Your task to perform on an android device: turn smart compose on in the gmail app Image 0: 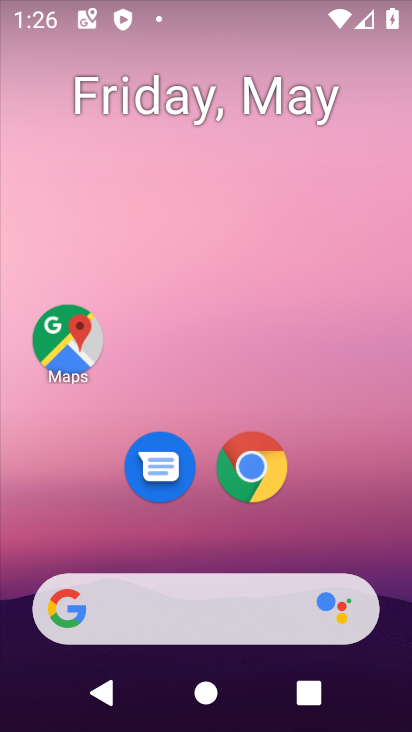
Step 0: drag from (339, 520) to (354, 187)
Your task to perform on an android device: turn smart compose on in the gmail app Image 1: 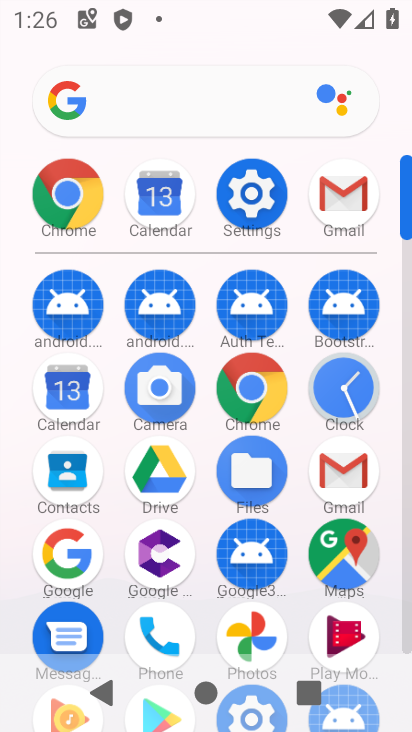
Step 1: click (345, 484)
Your task to perform on an android device: turn smart compose on in the gmail app Image 2: 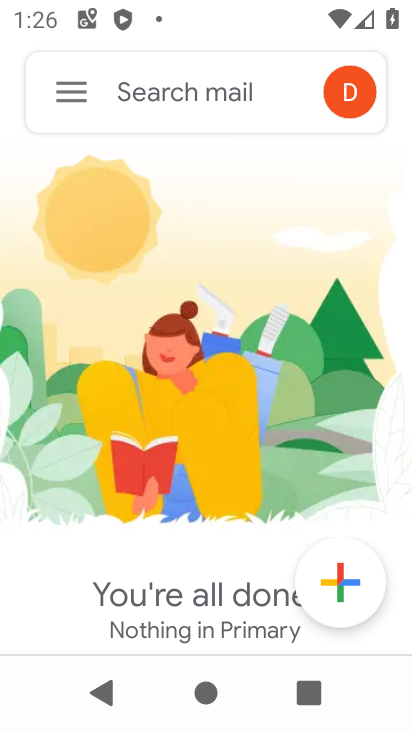
Step 2: click (75, 84)
Your task to perform on an android device: turn smart compose on in the gmail app Image 3: 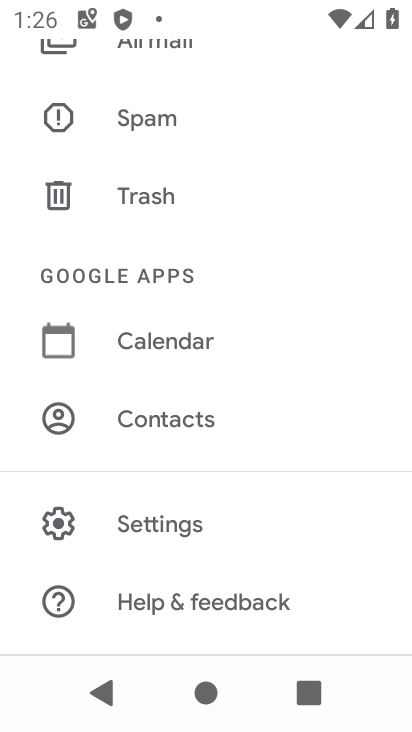
Step 3: click (137, 515)
Your task to perform on an android device: turn smart compose on in the gmail app Image 4: 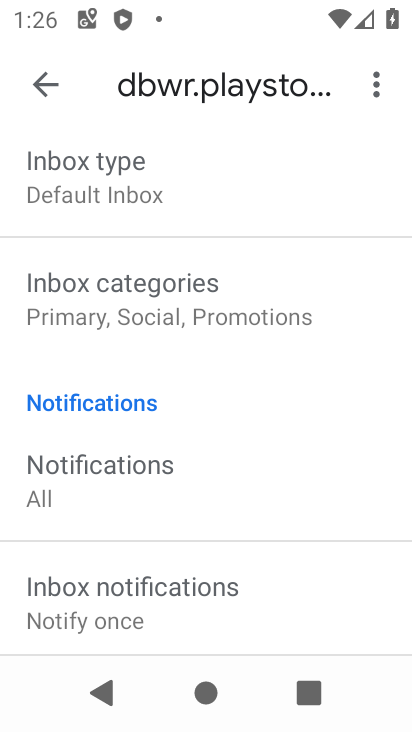
Step 4: task complete